Your task to perform on an android device: Open CNN.com Image 0: 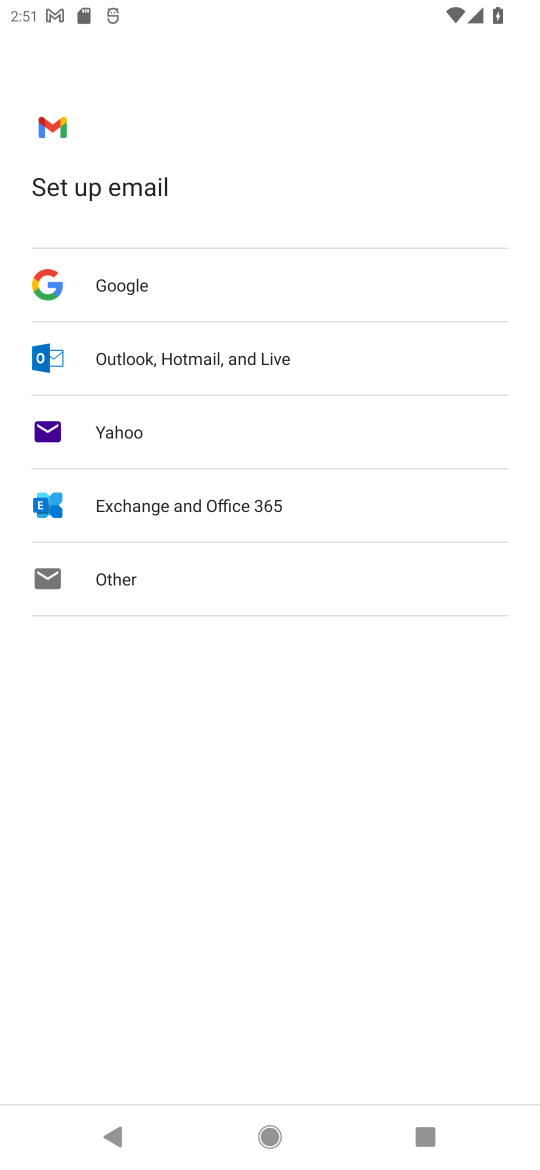
Step 0: press home button
Your task to perform on an android device: Open CNN.com Image 1: 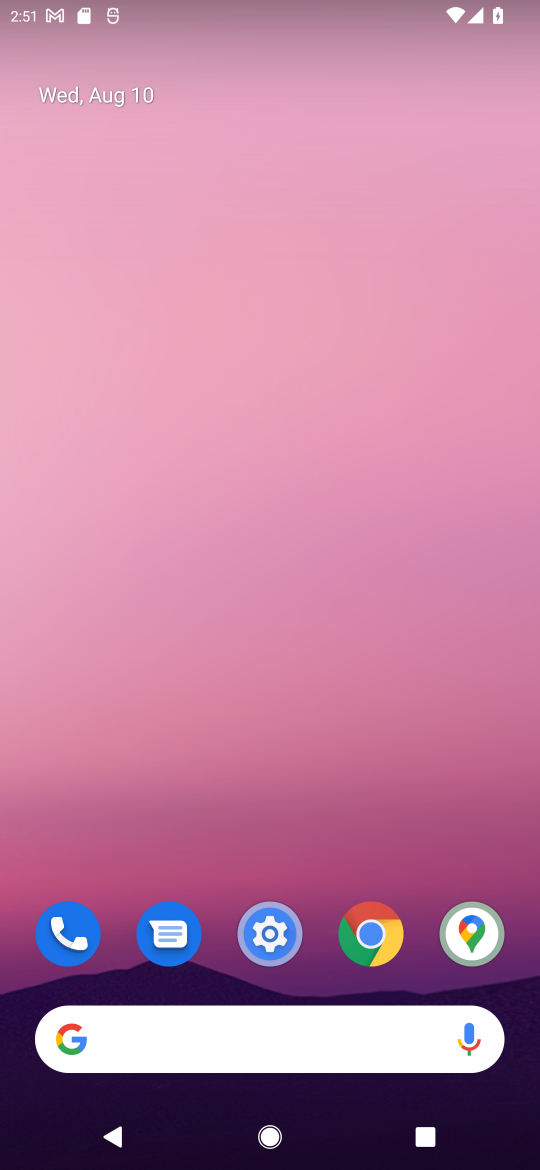
Step 1: click (145, 1055)
Your task to perform on an android device: Open CNN.com Image 2: 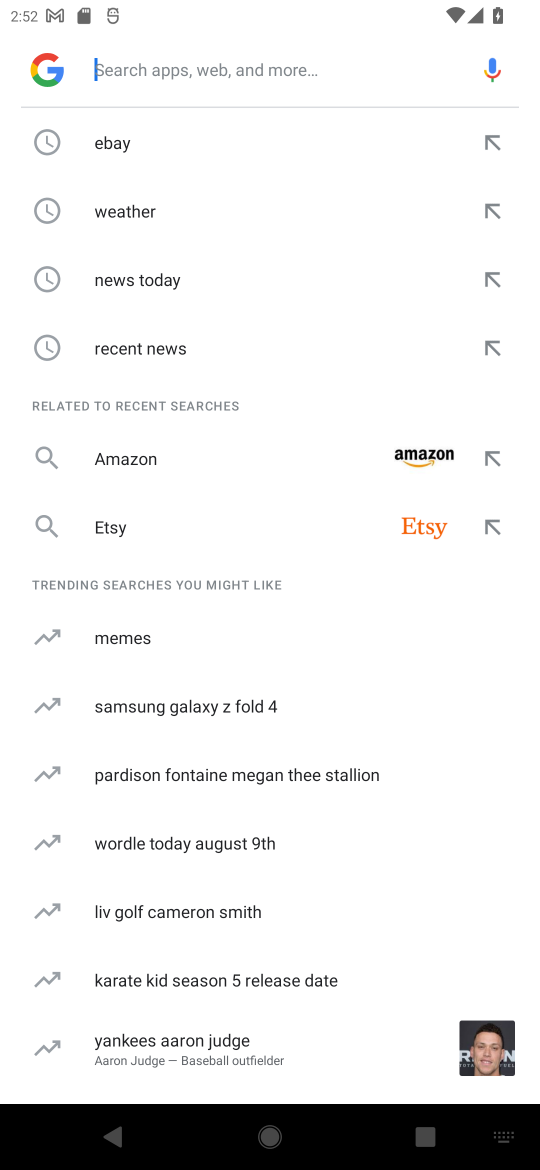
Step 2: type "CNN.com"
Your task to perform on an android device: Open CNN.com Image 3: 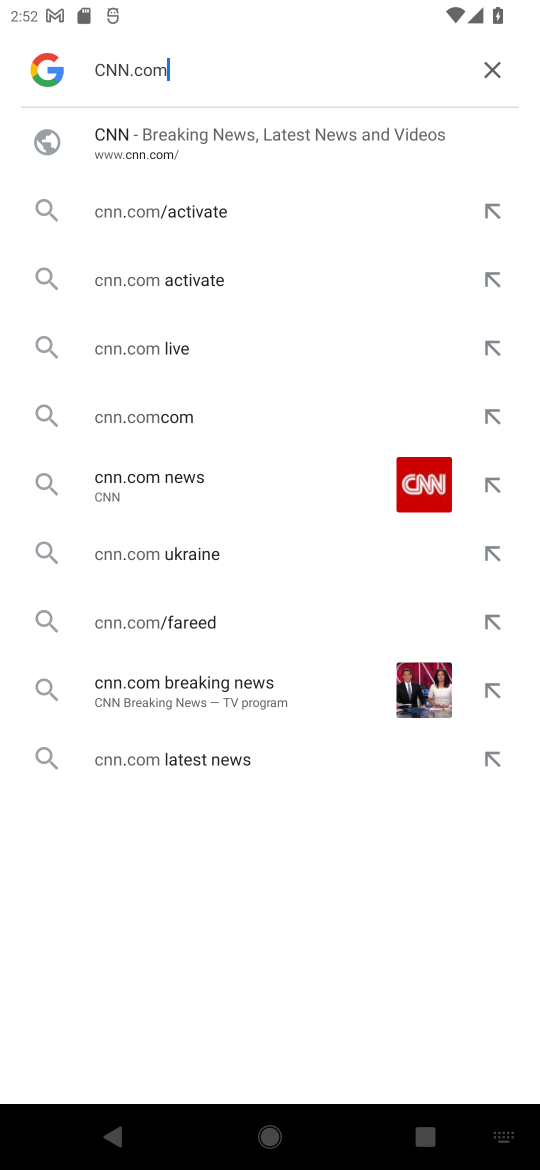
Step 3: click (110, 152)
Your task to perform on an android device: Open CNN.com Image 4: 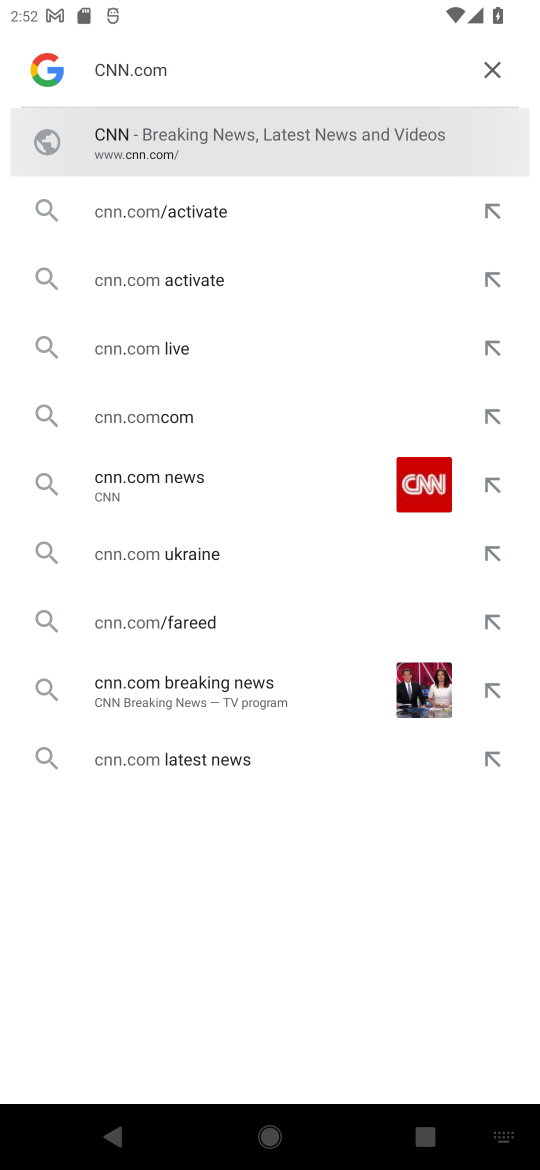
Step 4: click (110, 152)
Your task to perform on an android device: Open CNN.com Image 5: 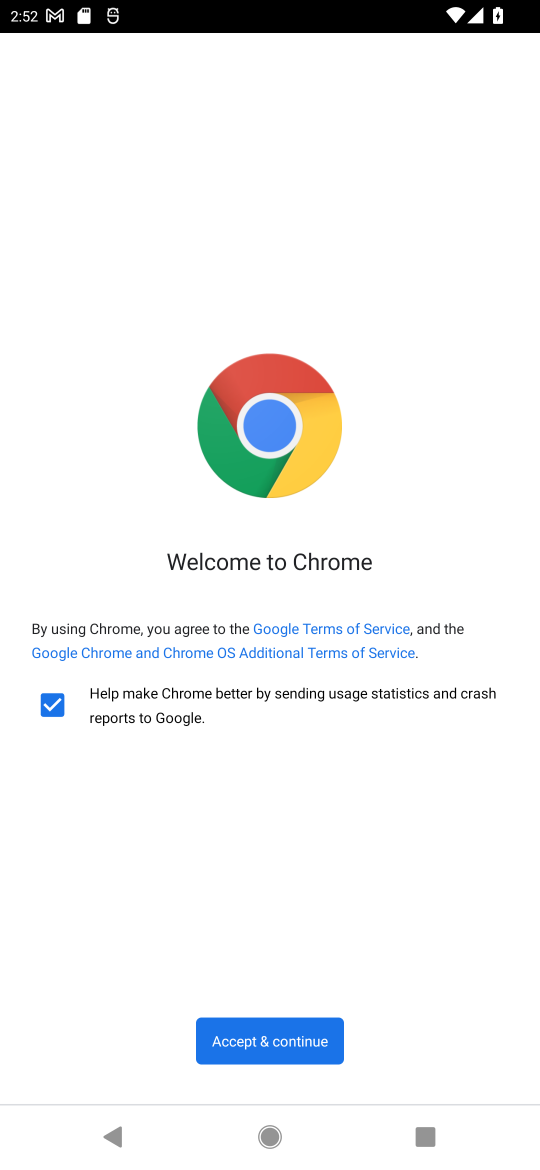
Step 5: click (265, 1044)
Your task to perform on an android device: Open CNN.com Image 6: 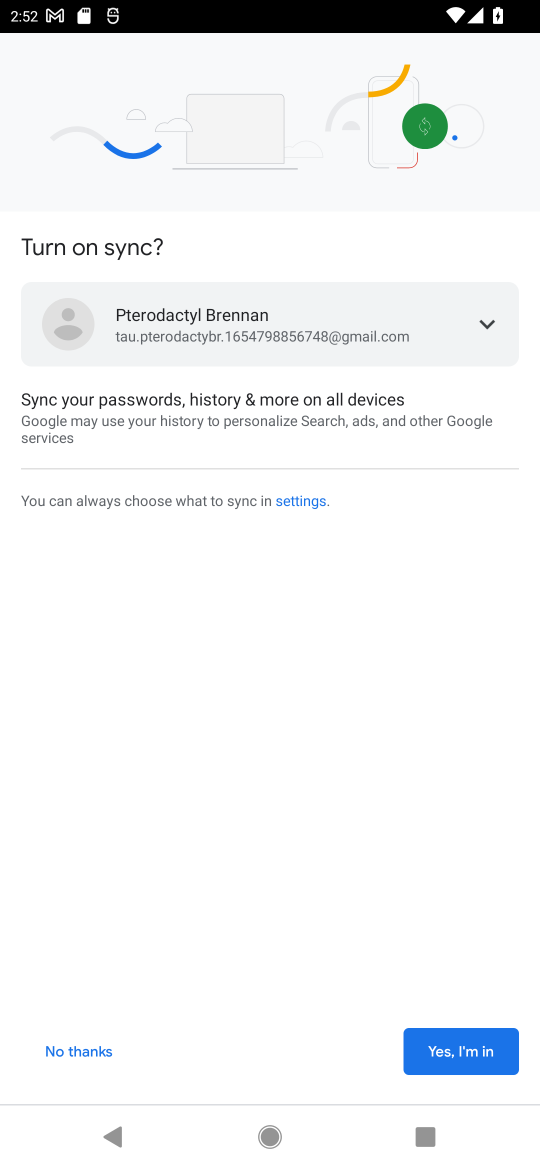
Step 6: click (431, 1055)
Your task to perform on an android device: Open CNN.com Image 7: 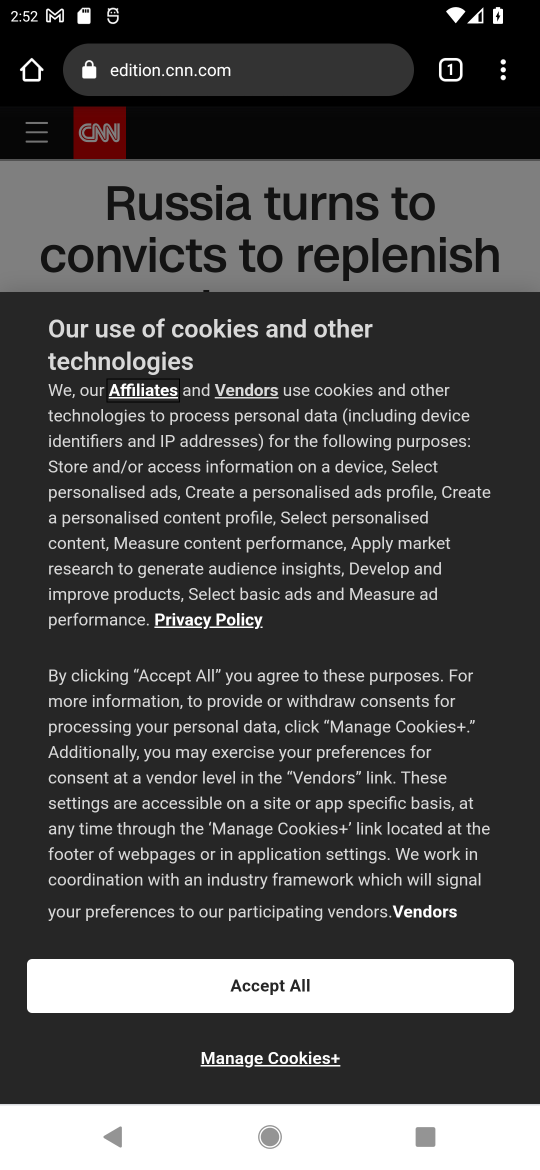
Step 7: task complete